Your task to perform on an android device: When is my next meeting? Image 0: 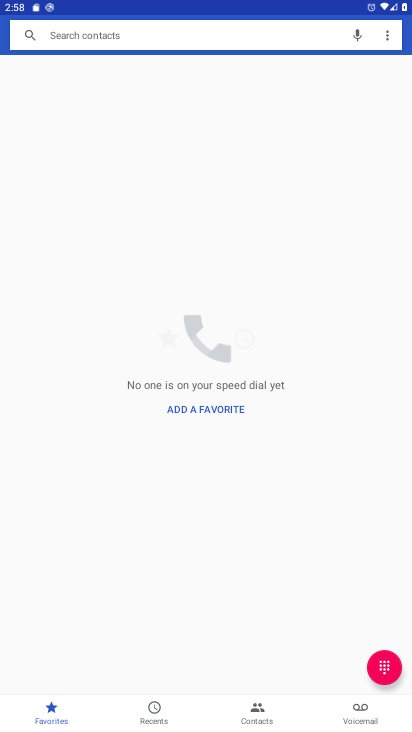
Step 0: press home button
Your task to perform on an android device: When is my next meeting? Image 1: 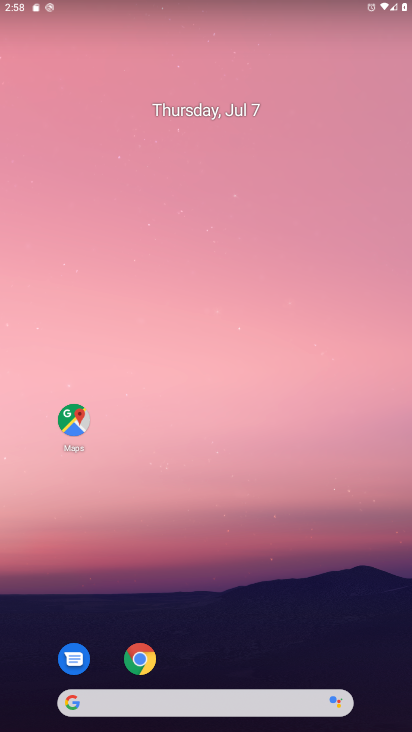
Step 1: drag from (196, 706) to (47, 96)
Your task to perform on an android device: When is my next meeting? Image 2: 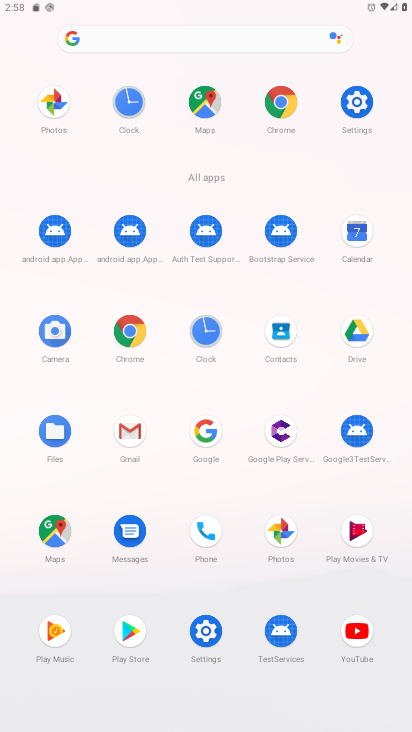
Step 2: click (356, 242)
Your task to perform on an android device: When is my next meeting? Image 3: 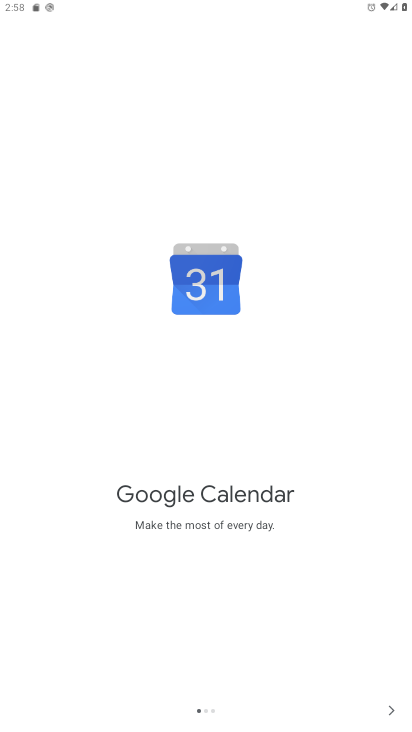
Step 3: click (392, 719)
Your task to perform on an android device: When is my next meeting? Image 4: 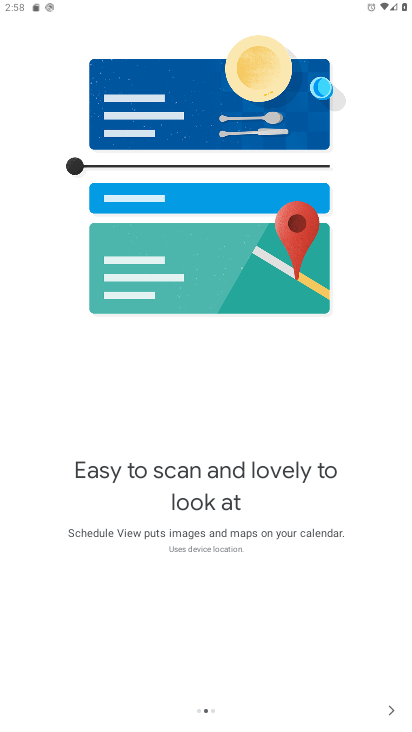
Step 4: click (393, 712)
Your task to perform on an android device: When is my next meeting? Image 5: 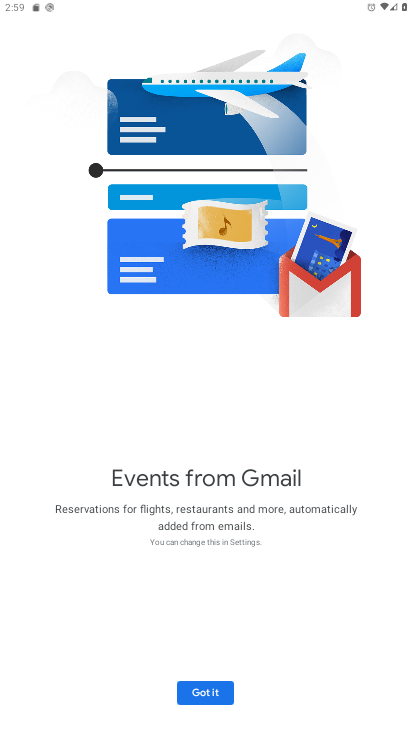
Step 5: click (217, 689)
Your task to perform on an android device: When is my next meeting? Image 6: 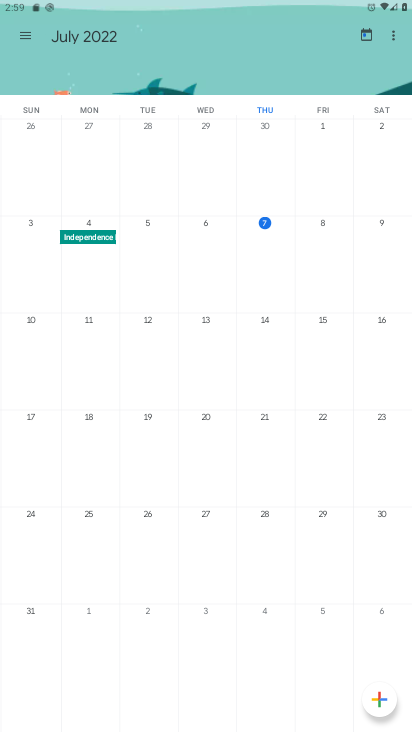
Step 6: click (17, 44)
Your task to perform on an android device: When is my next meeting? Image 7: 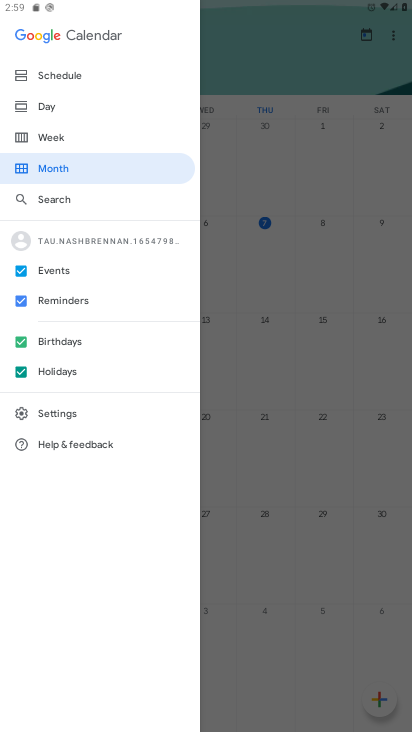
Step 7: click (72, 76)
Your task to perform on an android device: When is my next meeting? Image 8: 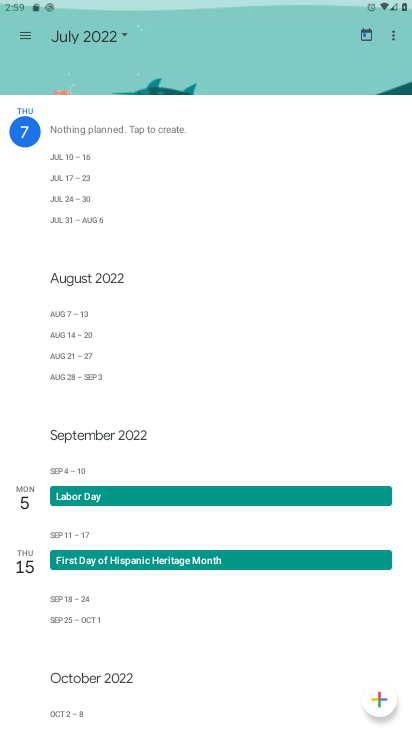
Step 8: task complete